Your task to perform on an android device: turn off location Image 0: 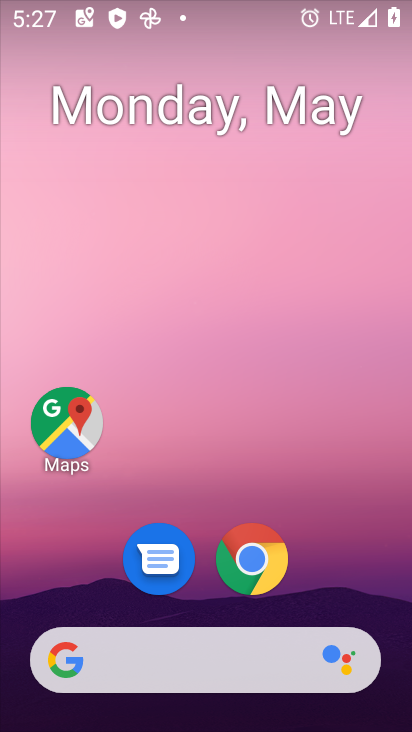
Step 0: drag from (305, 648) to (248, 5)
Your task to perform on an android device: turn off location Image 1: 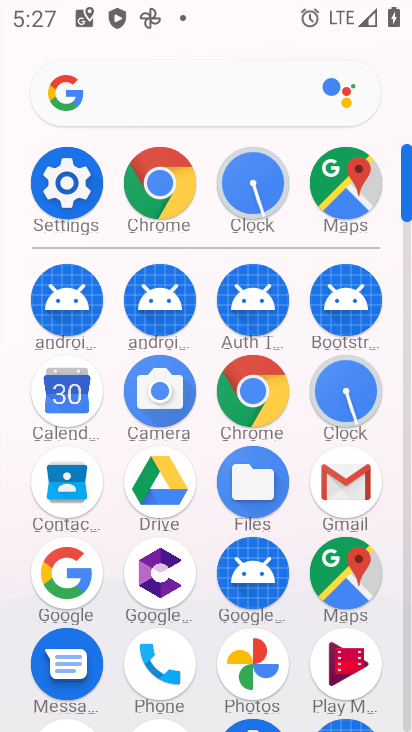
Step 1: click (55, 205)
Your task to perform on an android device: turn off location Image 2: 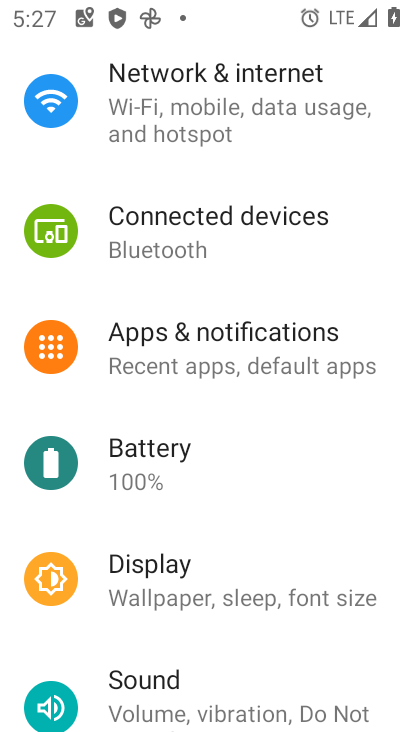
Step 2: drag from (248, 708) to (311, 110)
Your task to perform on an android device: turn off location Image 3: 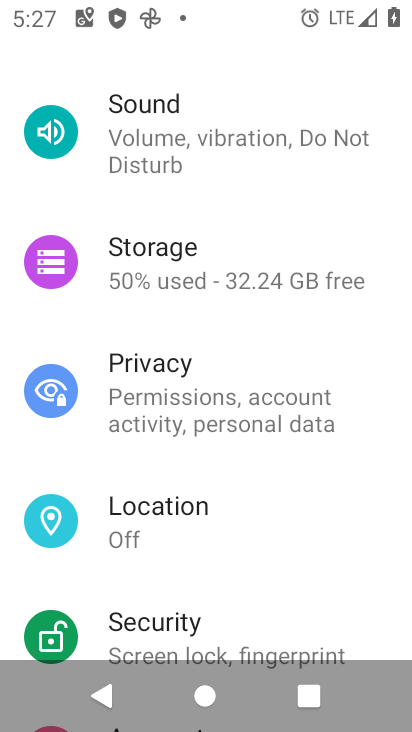
Step 3: click (225, 534)
Your task to perform on an android device: turn off location Image 4: 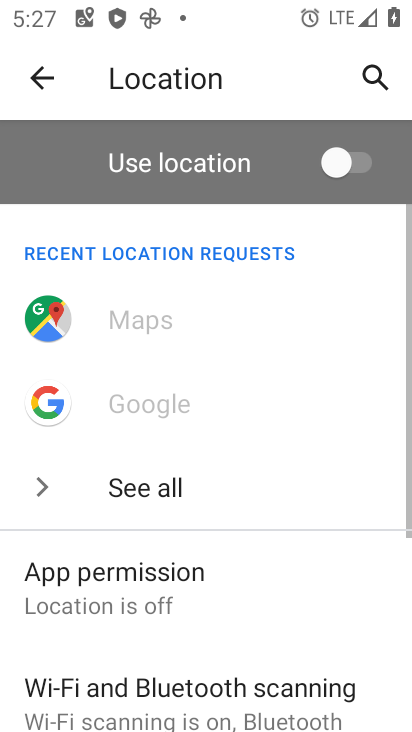
Step 4: task complete